Your task to perform on an android device: delete browsing data in the chrome app Image 0: 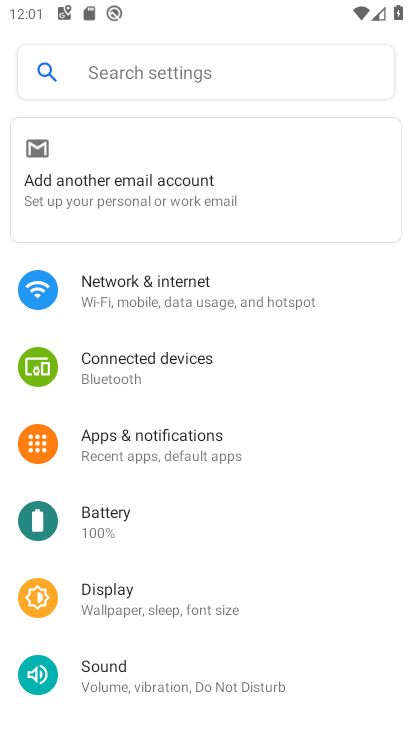
Step 0: press home button
Your task to perform on an android device: delete browsing data in the chrome app Image 1: 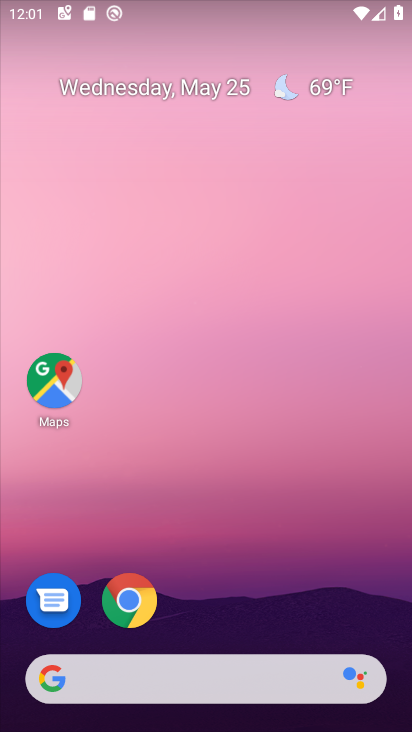
Step 1: drag from (378, 619) to (392, 146)
Your task to perform on an android device: delete browsing data in the chrome app Image 2: 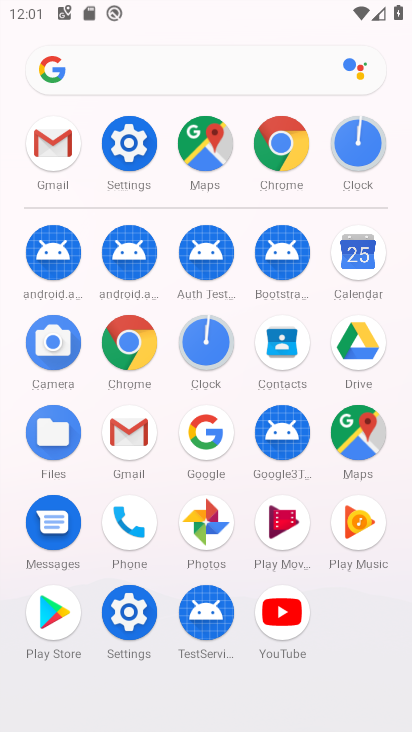
Step 2: click (143, 357)
Your task to perform on an android device: delete browsing data in the chrome app Image 3: 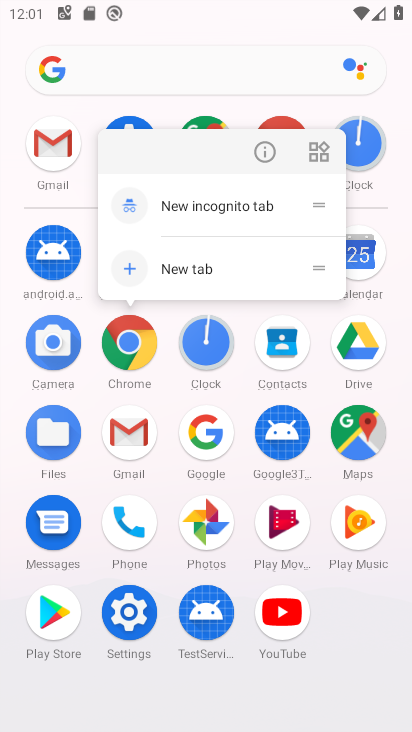
Step 3: click (143, 357)
Your task to perform on an android device: delete browsing data in the chrome app Image 4: 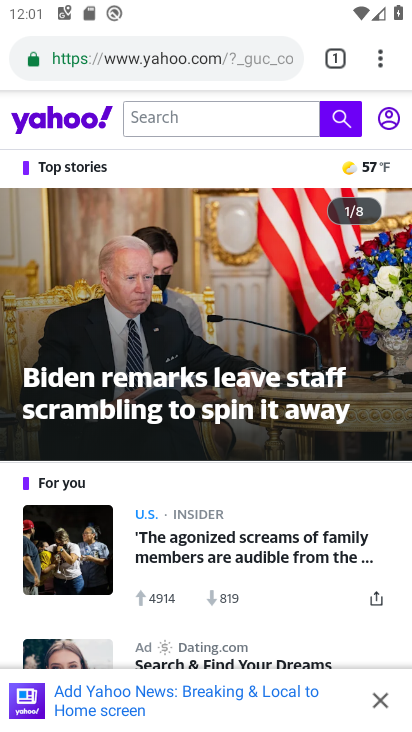
Step 4: click (378, 63)
Your task to perform on an android device: delete browsing data in the chrome app Image 5: 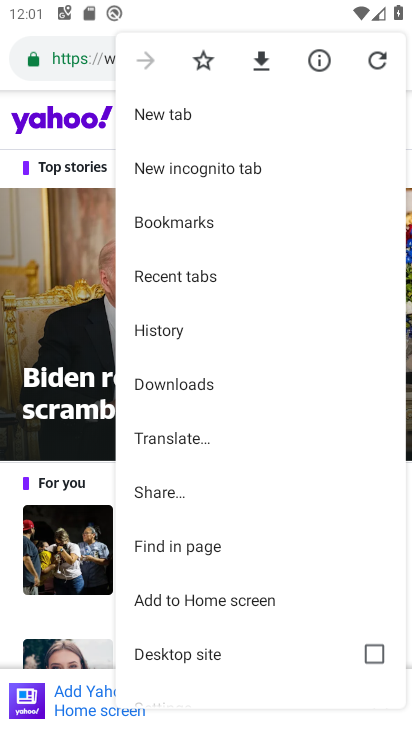
Step 5: drag from (348, 534) to (364, 426)
Your task to perform on an android device: delete browsing data in the chrome app Image 6: 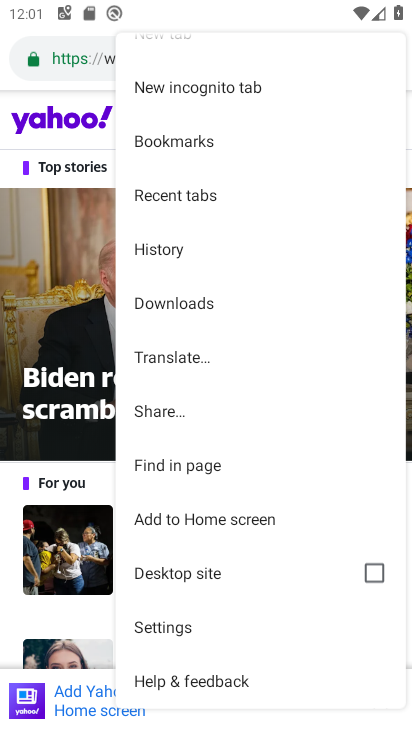
Step 6: drag from (283, 602) to (299, 465)
Your task to perform on an android device: delete browsing data in the chrome app Image 7: 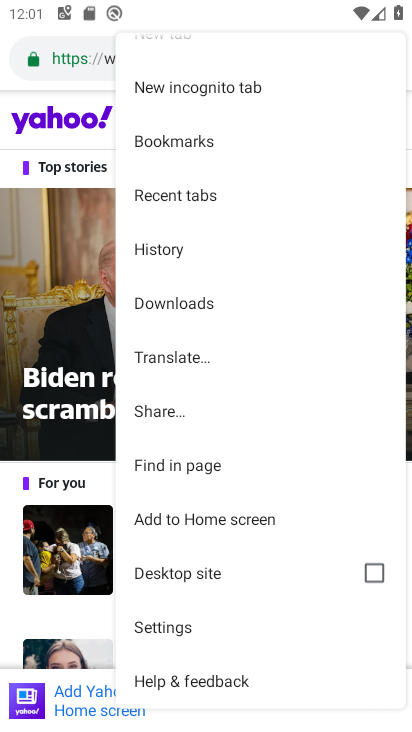
Step 7: click (212, 631)
Your task to perform on an android device: delete browsing data in the chrome app Image 8: 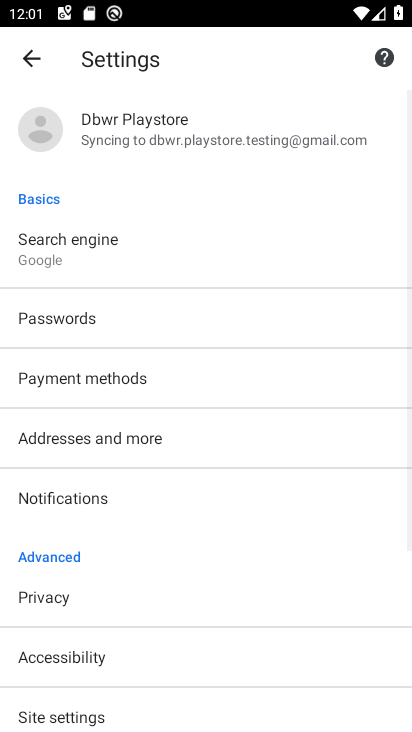
Step 8: drag from (307, 607) to (321, 494)
Your task to perform on an android device: delete browsing data in the chrome app Image 9: 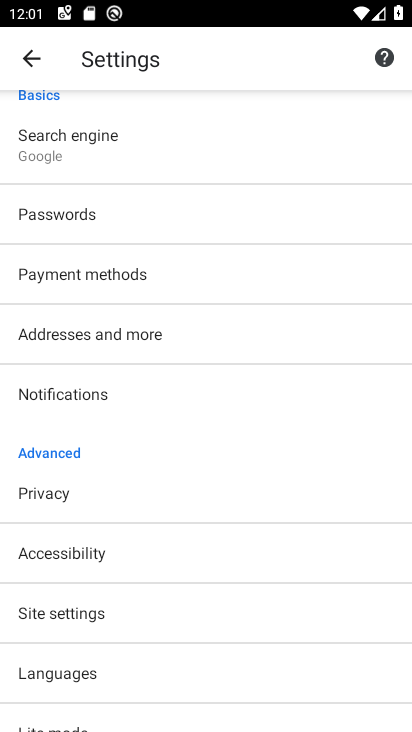
Step 9: drag from (322, 629) to (323, 547)
Your task to perform on an android device: delete browsing data in the chrome app Image 10: 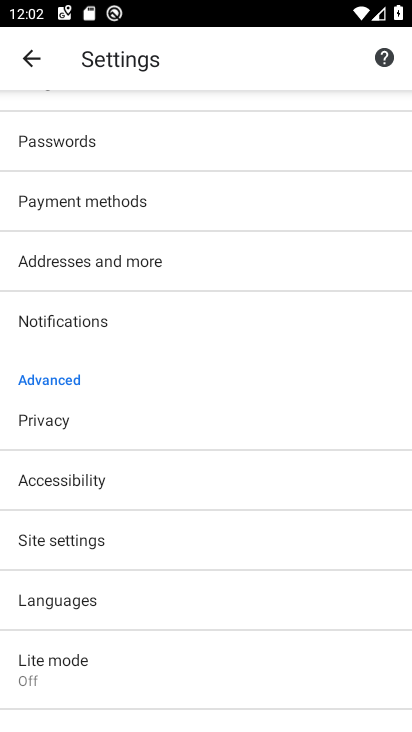
Step 10: drag from (304, 641) to (310, 556)
Your task to perform on an android device: delete browsing data in the chrome app Image 11: 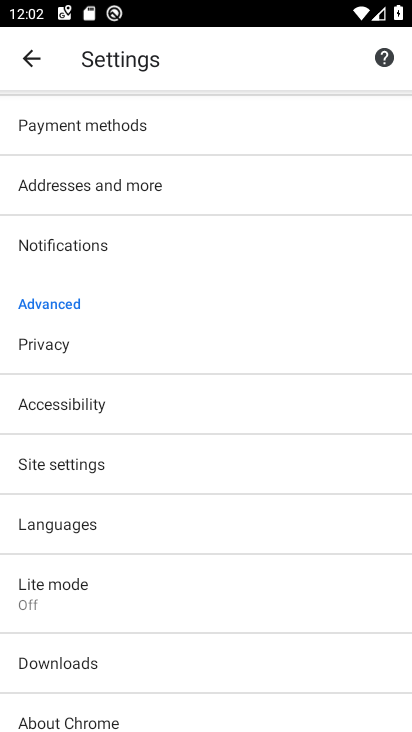
Step 11: drag from (309, 662) to (311, 579)
Your task to perform on an android device: delete browsing data in the chrome app Image 12: 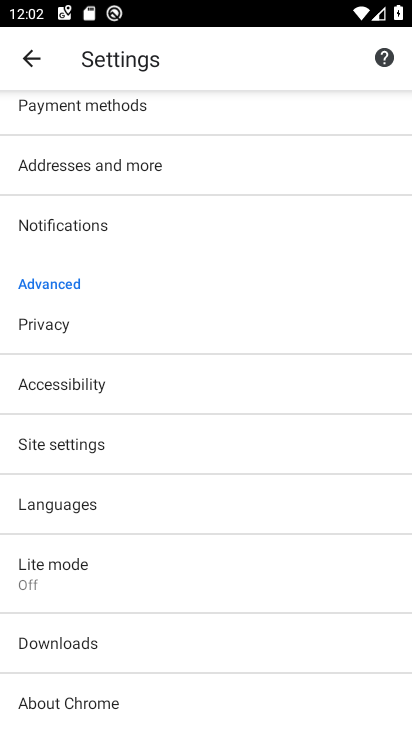
Step 12: drag from (292, 429) to (287, 503)
Your task to perform on an android device: delete browsing data in the chrome app Image 13: 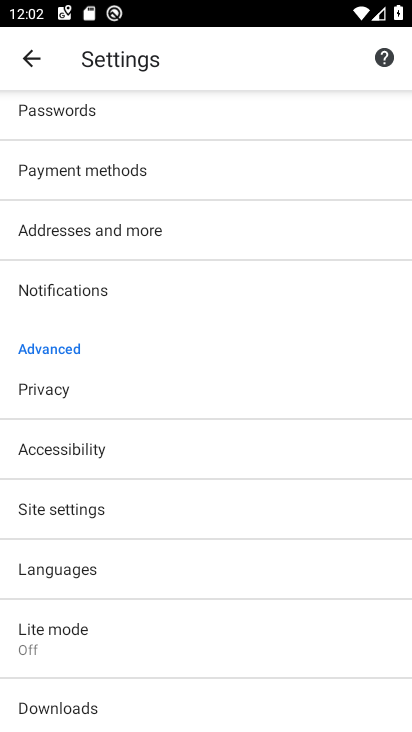
Step 13: click (210, 391)
Your task to perform on an android device: delete browsing data in the chrome app Image 14: 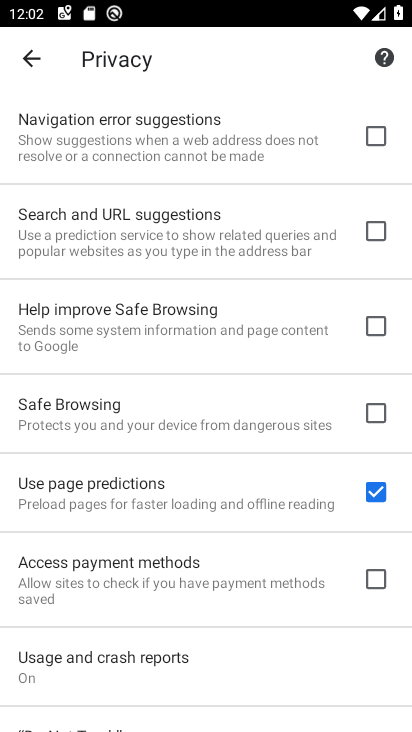
Step 14: drag from (264, 356) to (271, 465)
Your task to perform on an android device: delete browsing data in the chrome app Image 15: 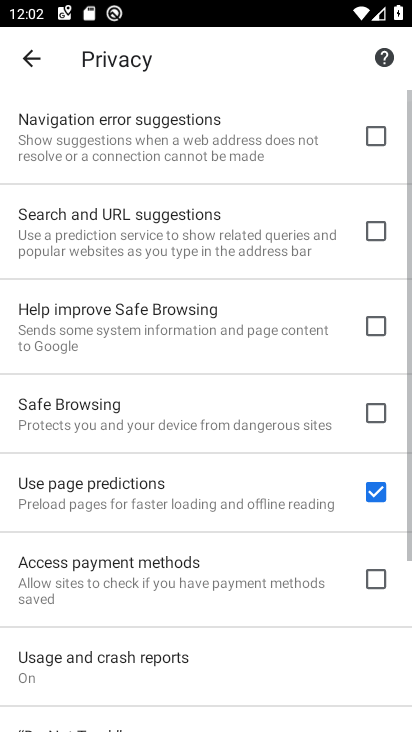
Step 15: drag from (274, 507) to (278, 444)
Your task to perform on an android device: delete browsing data in the chrome app Image 16: 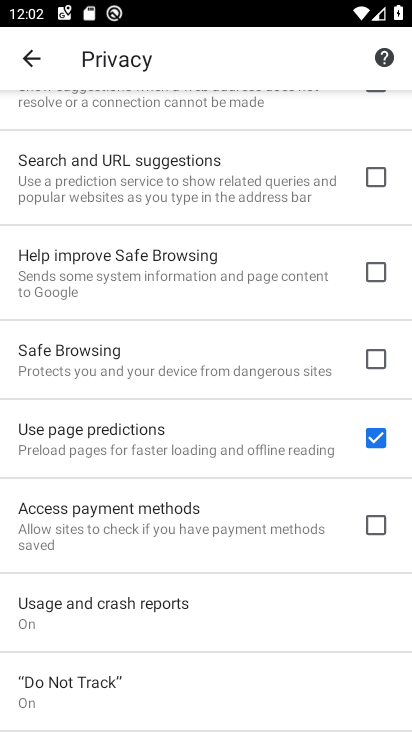
Step 16: drag from (285, 555) to (291, 473)
Your task to perform on an android device: delete browsing data in the chrome app Image 17: 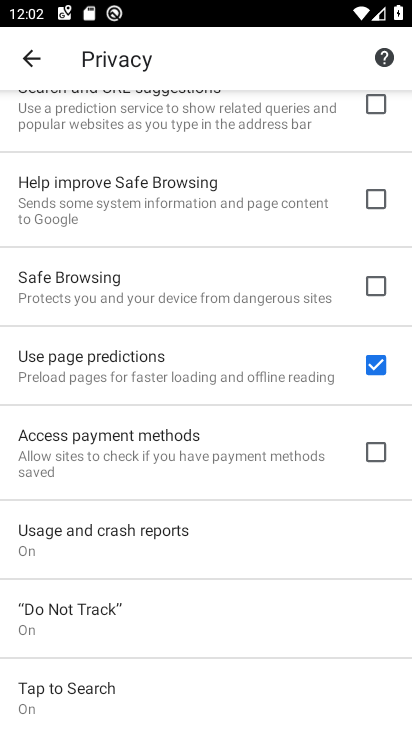
Step 17: drag from (291, 529) to (295, 466)
Your task to perform on an android device: delete browsing data in the chrome app Image 18: 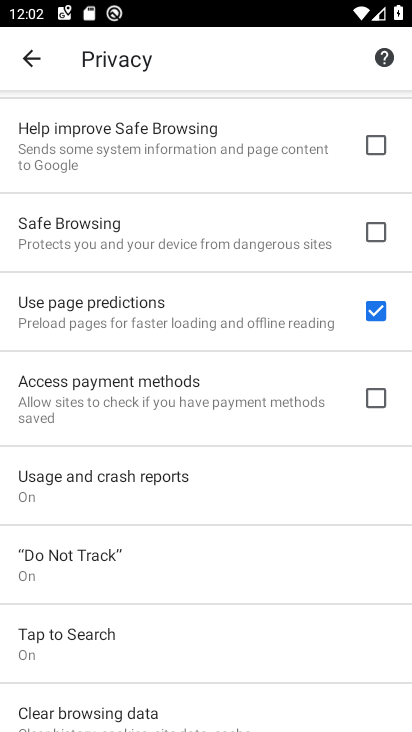
Step 18: drag from (294, 559) to (297, 487)
Your task to perform on an android device: delete browsing data in the chrome app Image 19: 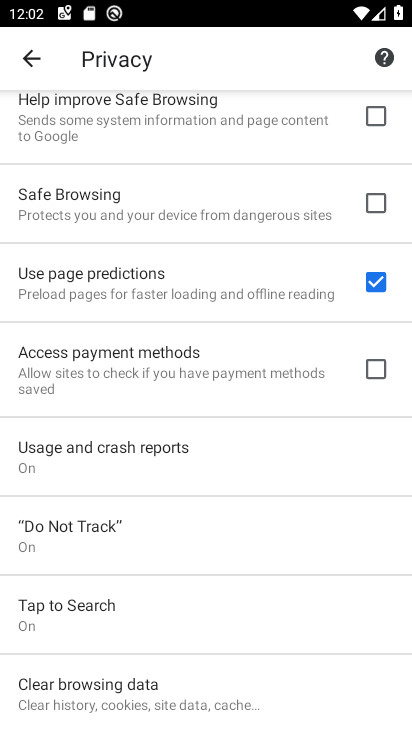
Step 19: click (218, 697)
Your task to perform on an android device: delete browsing data in the chrome app Image 20: 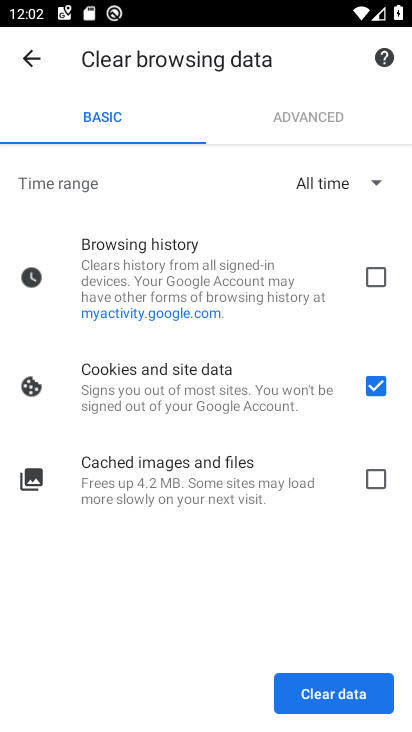
Step 20: click (377, 477)
Your task to perform on an android device: delete browsing data in the chrome app Image 21: 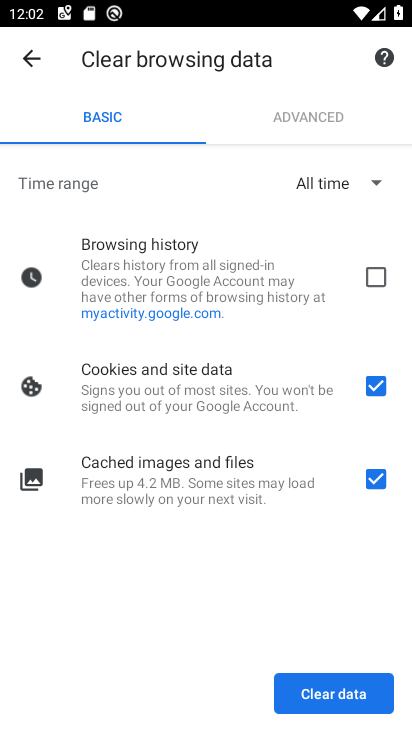
Step 21: click (380, 270)
Your task to perform on an android device: delete browsing data in the chrome app Image 22: 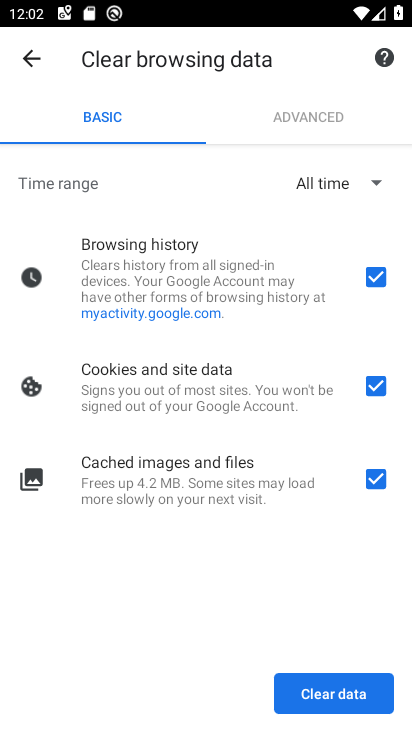
Step 22: click (331, 688)
Your task to perform on an android device: delete browsing data in the chrome app Image 23: 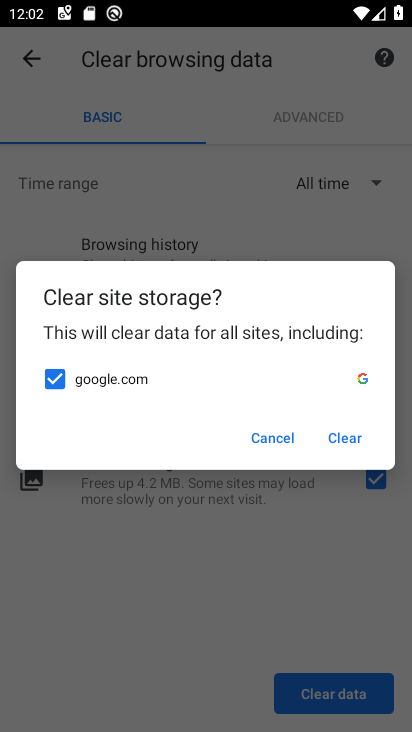
Step 23: click (352, 447)
Your task to perform on an android device: delete browsing data in the chrome app Image 24: 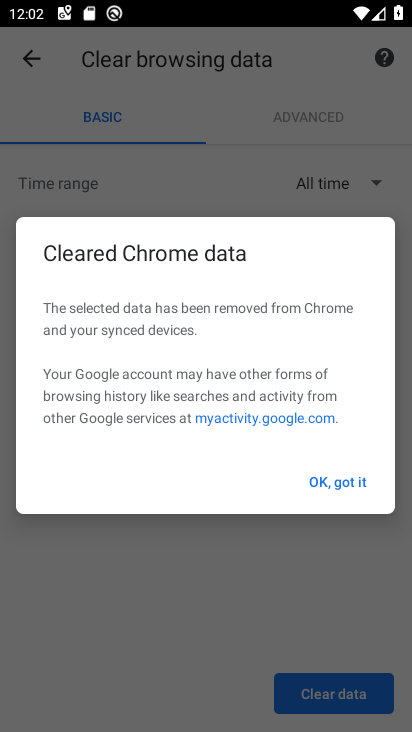
Step 24: click (344, 497)
Your task to perform on an android device: delete browsing data in the chrome app Image 25: 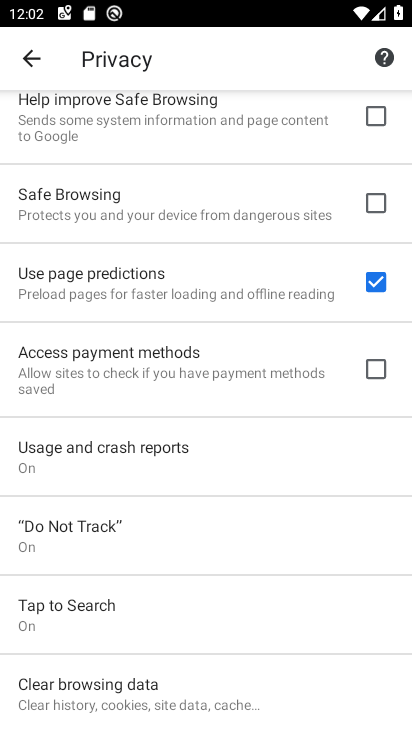
Step 25: task complete